Your task to perform on an android device: Search for pizza restaurants on Maps Image 0: 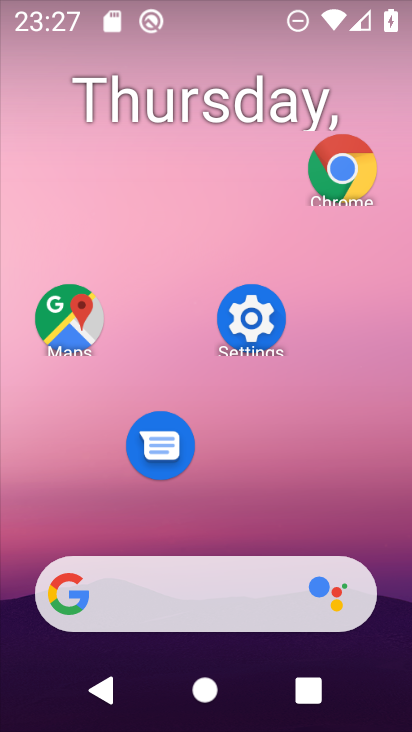
Step 0: drag from (219, 489) to (186, 2)
Your task to perform on an android device: Search for pizza restaurants on Maps Image 1: 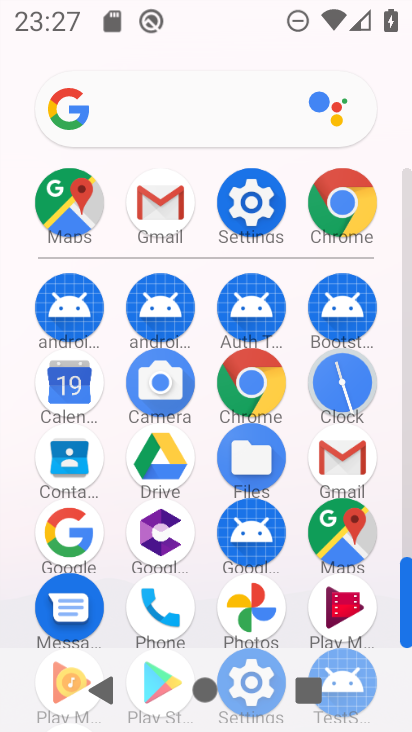
Step 1: click (346, 508)
Your task to perform on an android device: Search for pizza restaurants on Maps Image 2: 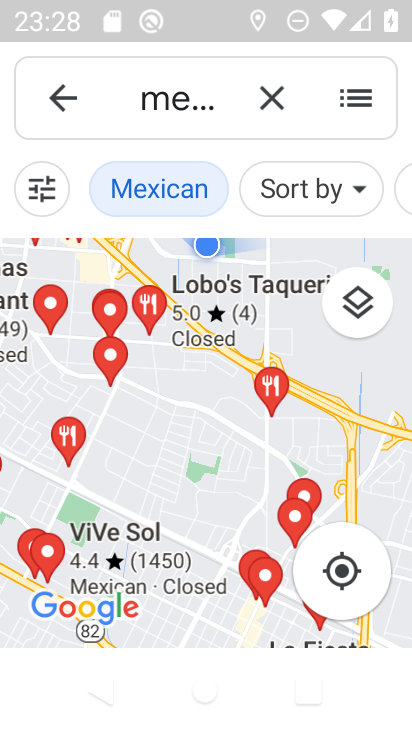
Step 2: click (43, 93)
Your task to perform on an android device: Search for pizza restaurants on Maps Image 3: 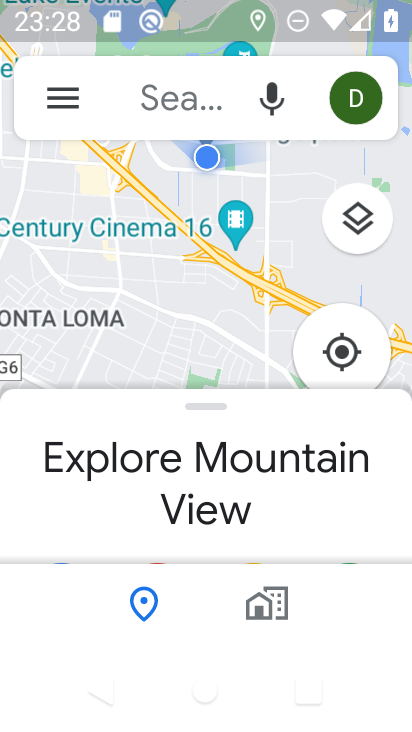
Step 3: click (93, 96)
Your task to perform on an android device: Search for pizza restaurants on Maps Image 4: 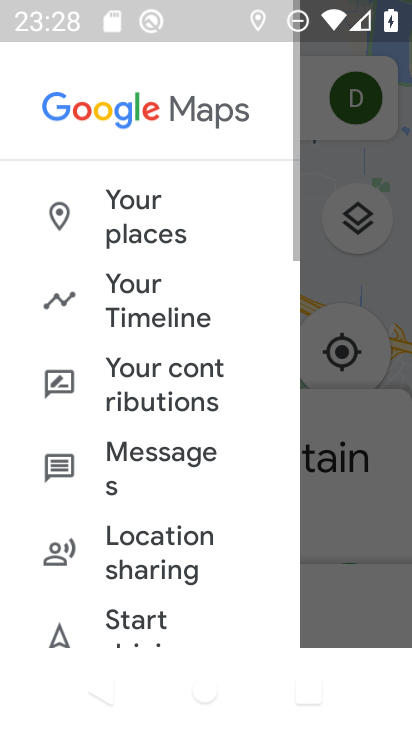
Step 4: drag from (157, 515) to (216, 227)
Your task to perform on an android device: Search for pizza restaurants on Maps Image 5: 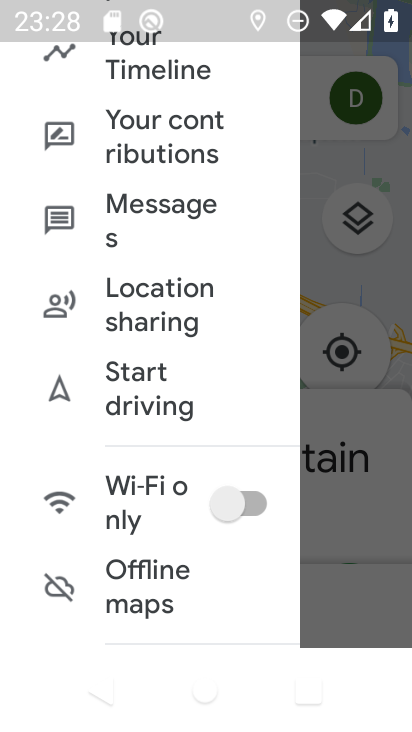
Step 5: drag from (191, 568) to (224, 211)
Your task to perform on an android device: Search for pizza restaurants on Maps Image 6: 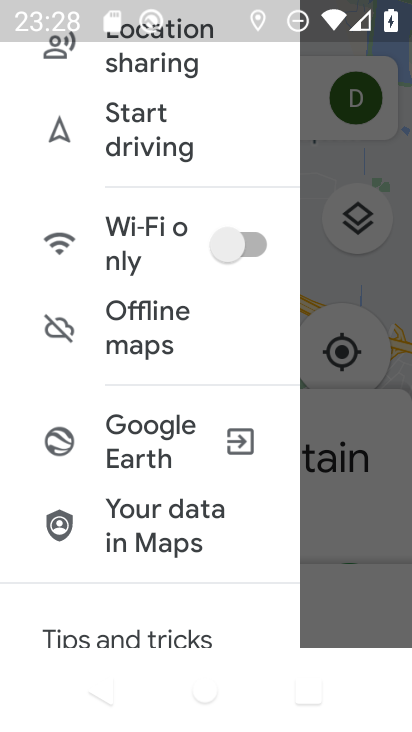
Step 6: drag from (142, 526) to (173, 206)
Your task to perform on an android device: Search for pizza restaurants on Maps Image 7: 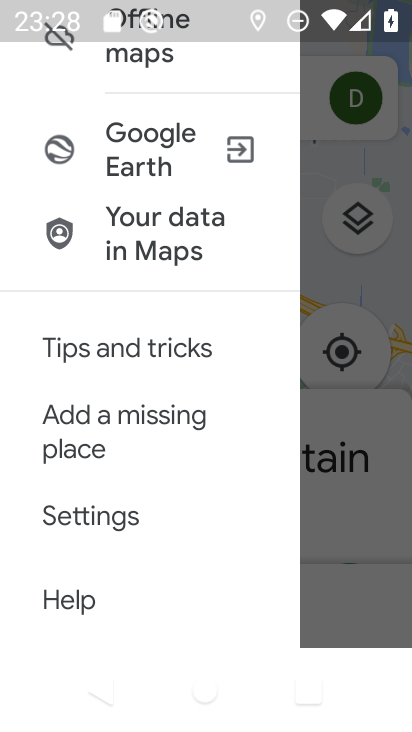
Step 7: drag from (152, 546) to (169, 224)
Your task to perform on an android device: Search for pizza restaurants on Maps Image 8: 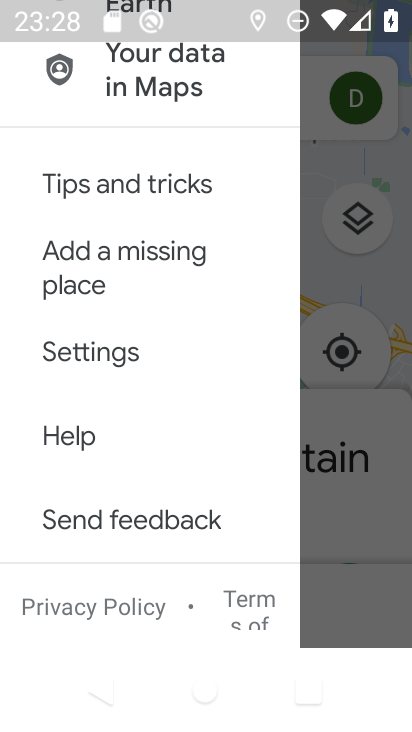
Step 8: click (75, 345)
Your task to perform on an android device: Search for pizza restaurants on Maps Image 9: 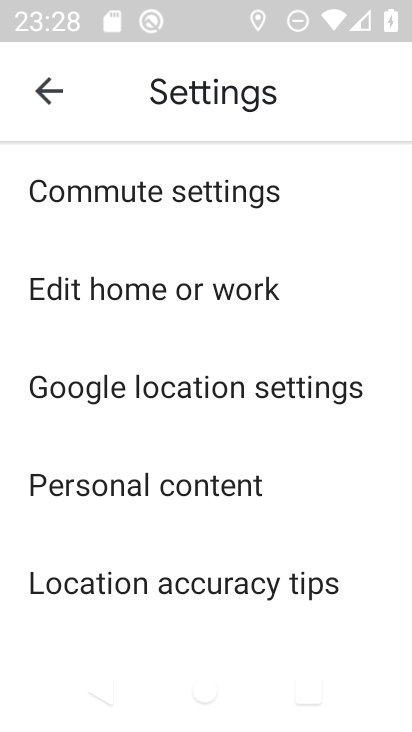
Step 9: drag from (188, 553) to (212, 271)
Your task to perform on an android device: Search for pizza restaurants on Maps Image 10: 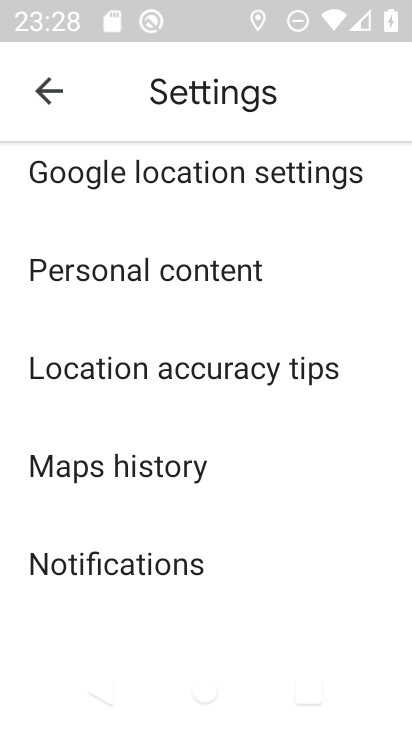
Step 10: click (42, 103)
Your task to perform on an android device: Search for pizza restaurants on Maps Image 11: 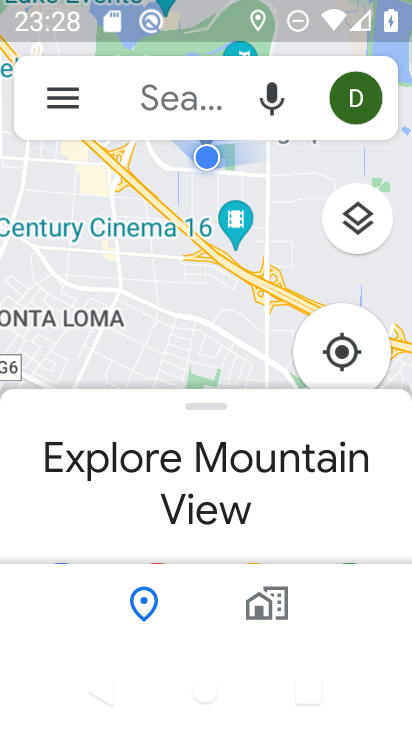
Step 11: click (134, 98)
Your task to perform on an android device: Search for pizza restaurants on Maps Image 12: 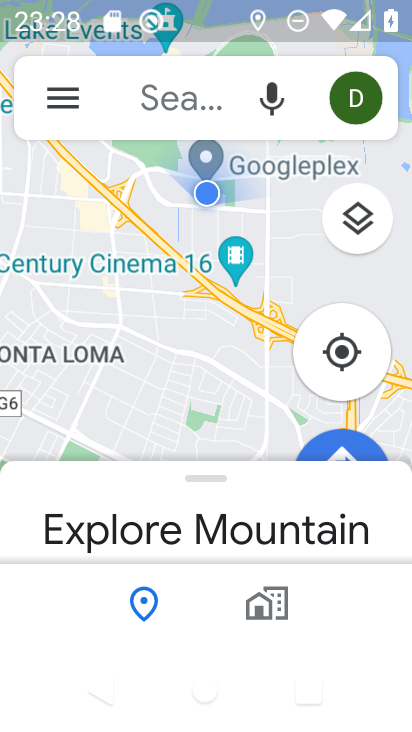
Step 12: click (120, 100)
Your task to perform on an android device: Search for pizza restaurants on Maps Image 13: 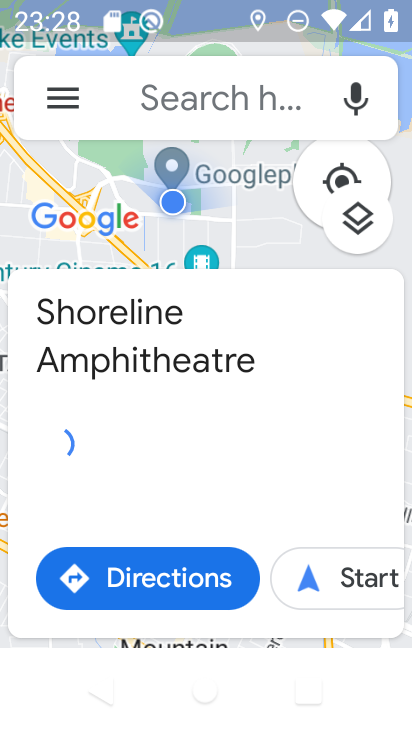
Step 13: click (171, 96)
Your task to perform on an android device: Search for pizza restaurants on Maps Image 14: 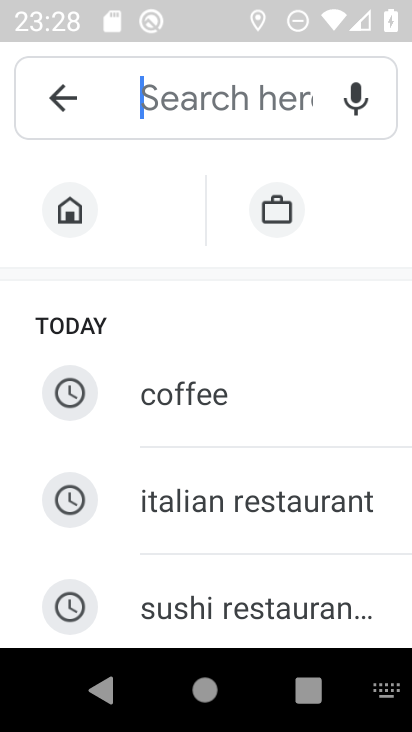
Step 14: drag from (163, 568) to (239, 200)
Your task to perform on an android device: Search for pizza restaurants on Maps Image 15: 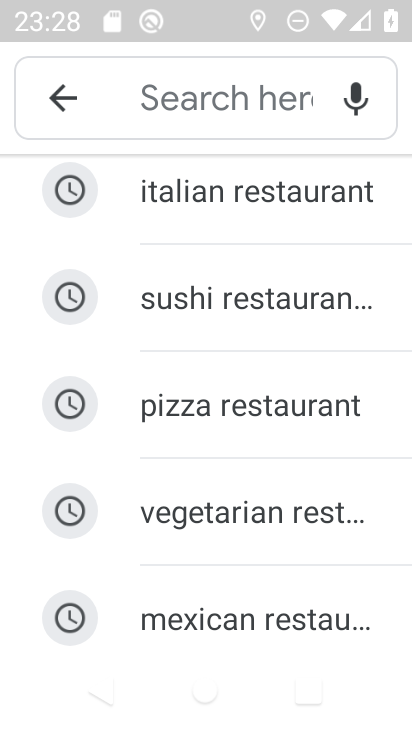
Step 15: click (196, 372)
Your task to perform on an android device: Search for pizza restaurants on Maps Image 16: 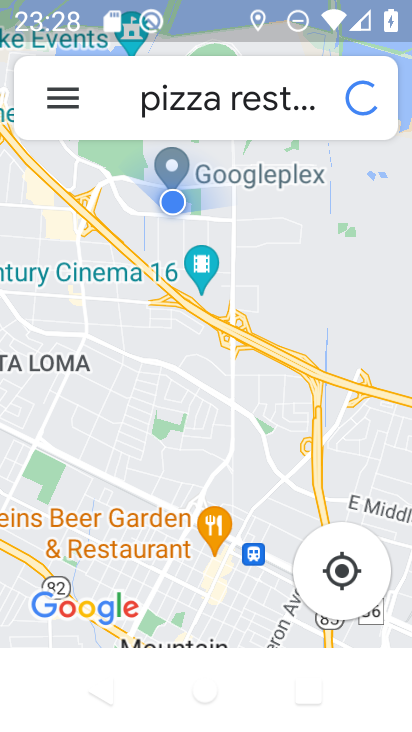
Step 16: task complete